Your task to perform on an android device: check data usage Image 0: 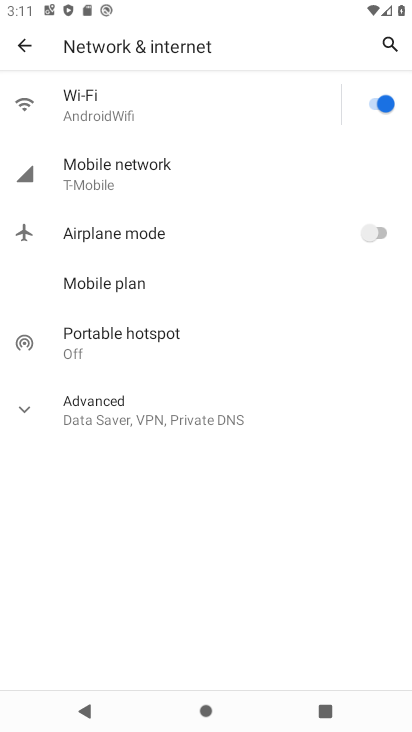
Step 0: press home button
Your task to perform on an android device: check data usage Image 1: 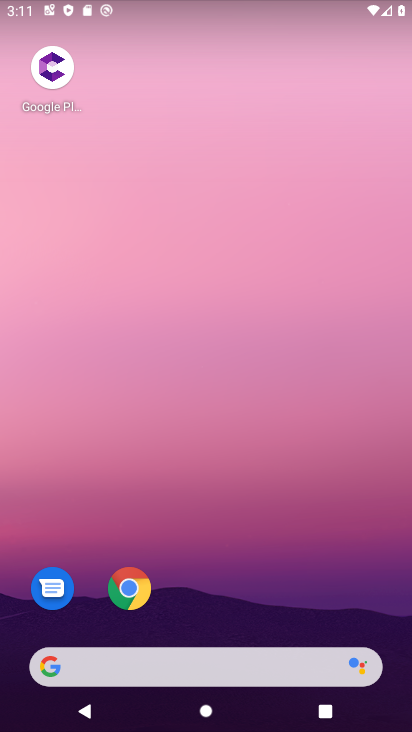
Step 1: drag from (246, 628) to (208, 69)
Your task to perform on an android device: check data usage Image 2: 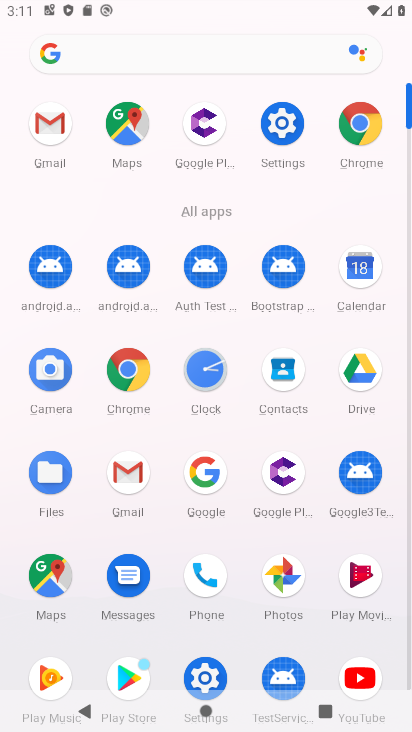
Step 2: click (217, 674)
Your task to perform on an android device: check data usage Image 3: 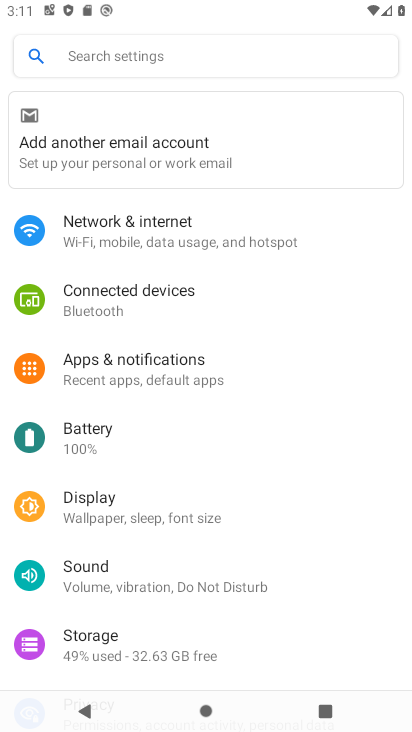
Step 3: click (178, 205)
Your task to perform on an android device: check data usage Image 4: 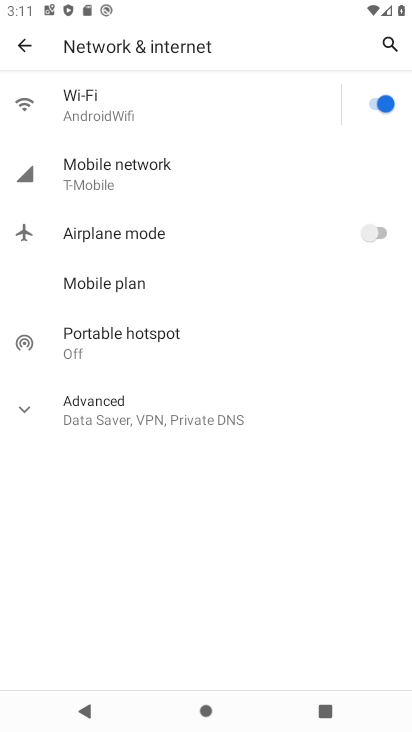
Step 4: task complete